Your task to perform on an android device: Open display settings Image 0: 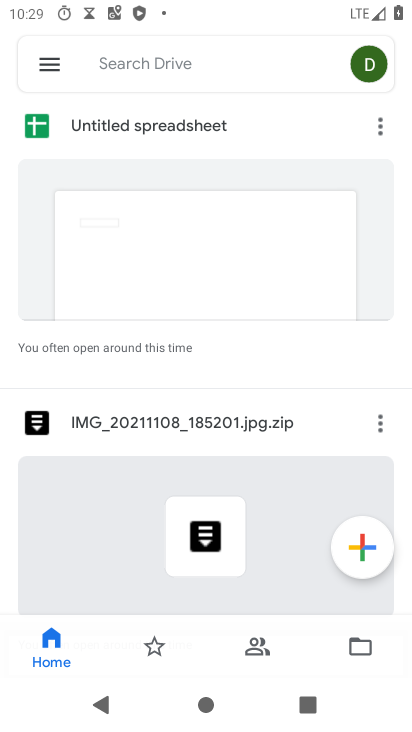
Step 0: press home button
Your task to perform on an android device: Open display settings Image 1: 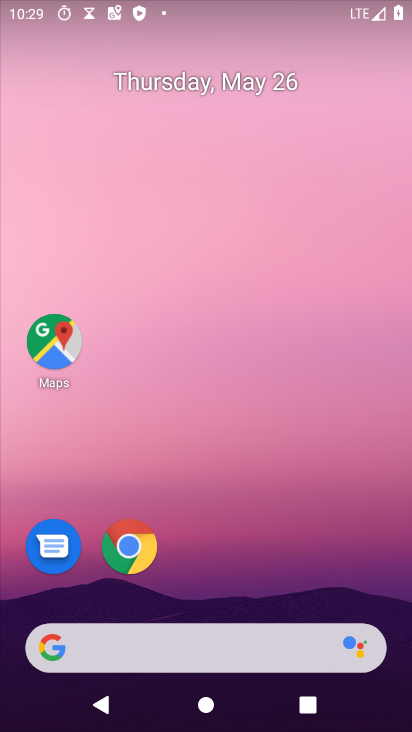
Step 1: drag from (382, 592) to (386, 113)
Your task to perform on an android device: Open display settings Image 2: 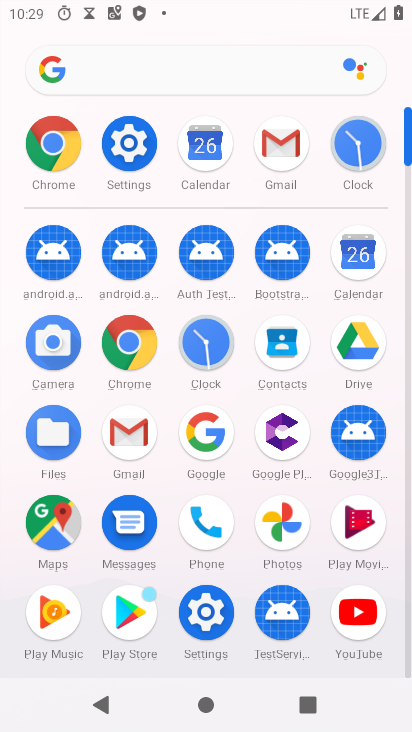
Step 2: click (201, 629)
Your task to perform on an android device: Open display settings Image 3: 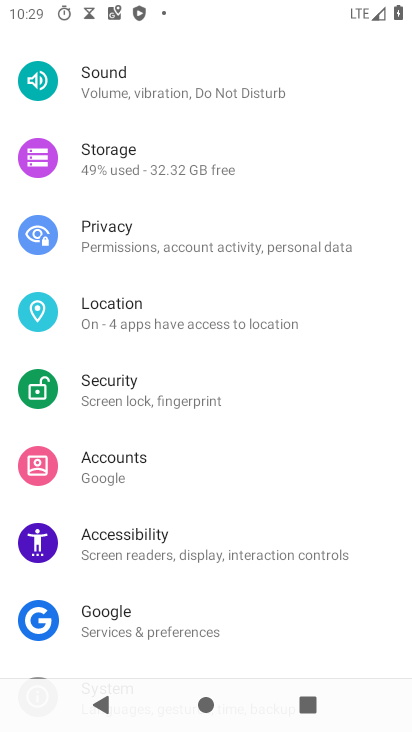
Step 3: drag from (192, 484) to (228, 192)
Your task to perform on an android device: Open display settings Image 4: 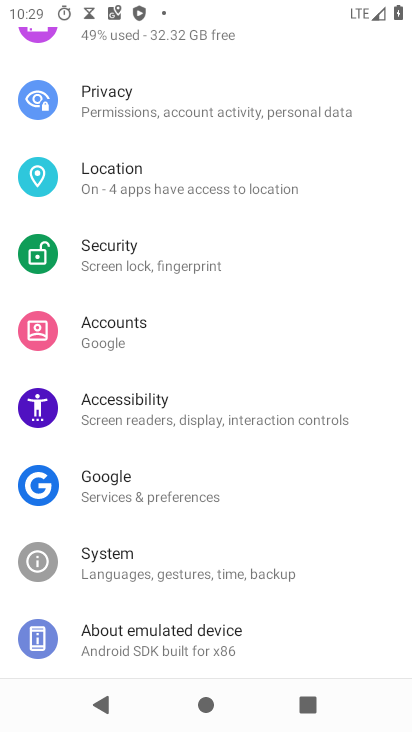
Step 4: drag from (208, 158) to (177, 626)
Your task to perform on an android device: Open display settings Image 5: 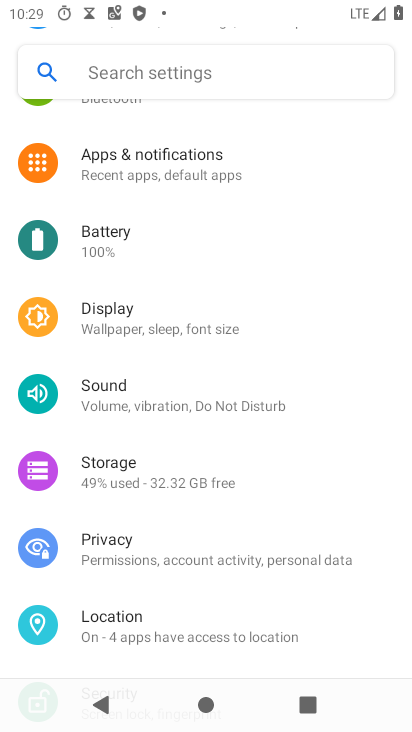
Step 5: click (185, 328)
Your task to perform on an android device: Open display settings Image 6: 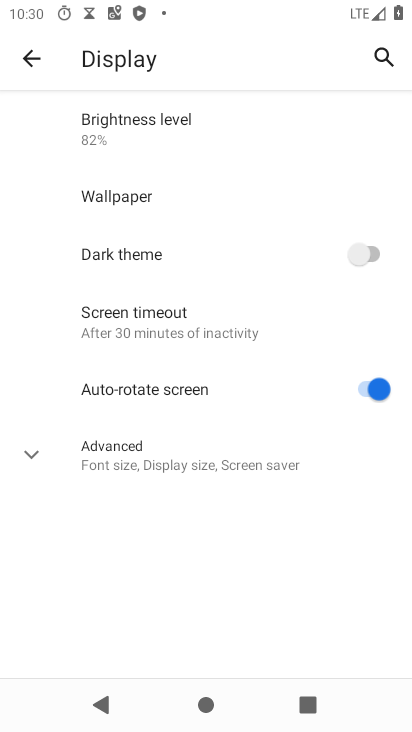
Step 6: click (31, 470)
Your task to perform on an android device: Open display settings Image 7: 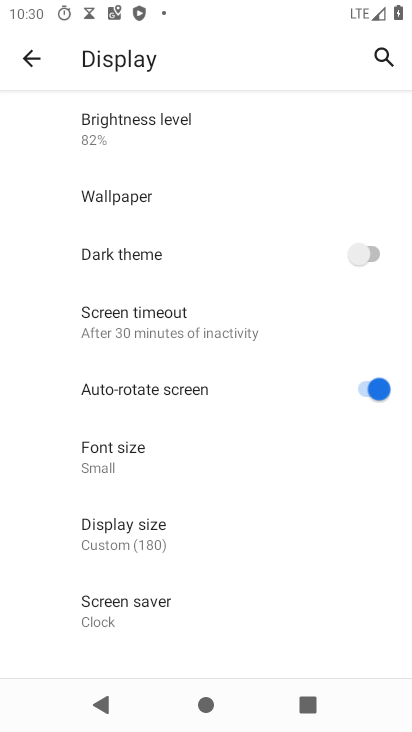
Step 7: task complete